Your task to perform on an android device: open app "DoorDash - Food Delivery" (install if not already installed) and go to login screen Image 0: 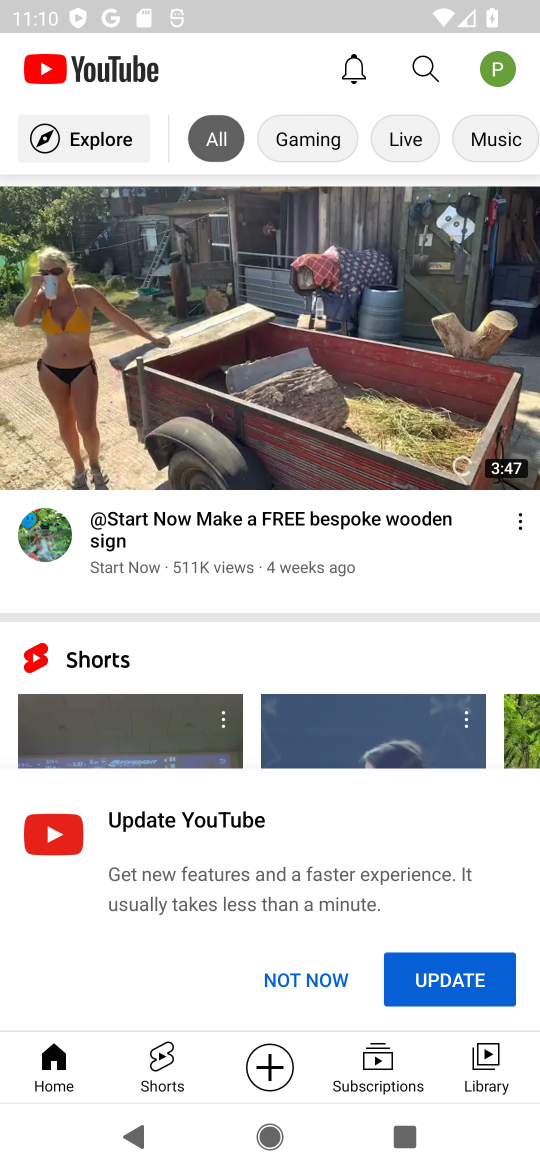
Step 0: press back button
Your task to perform on an android device: open app "DoorDash - Food Delivery" (install if not already installed) and go to login screen Image 1: 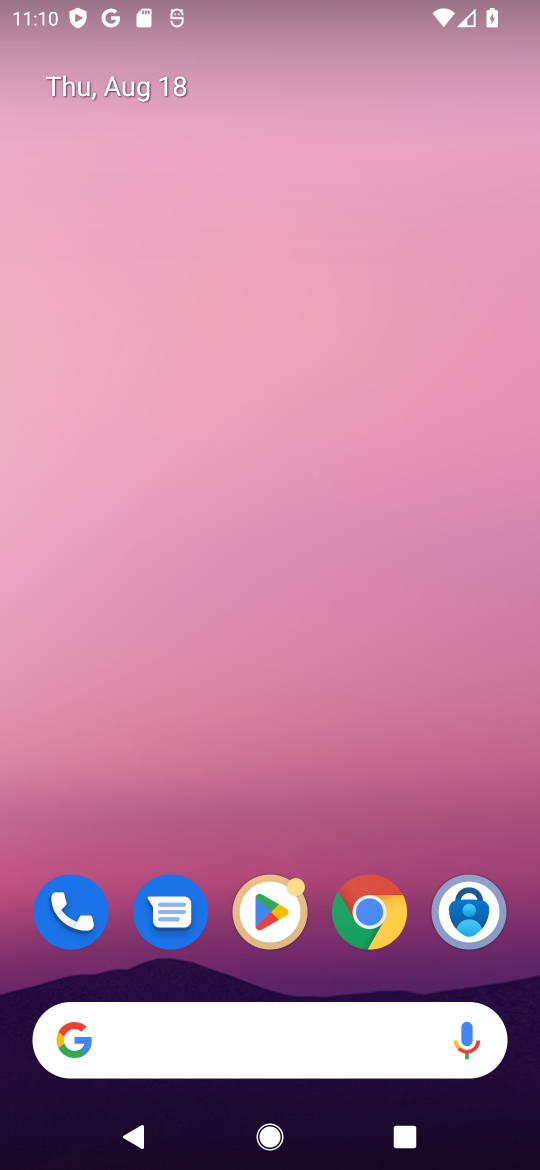
Step 1: click (261, 922)
Your task to perform on an android device: open app "DoorDash - Food Delivery" (install if not already installed) and go to login screen Image 2: 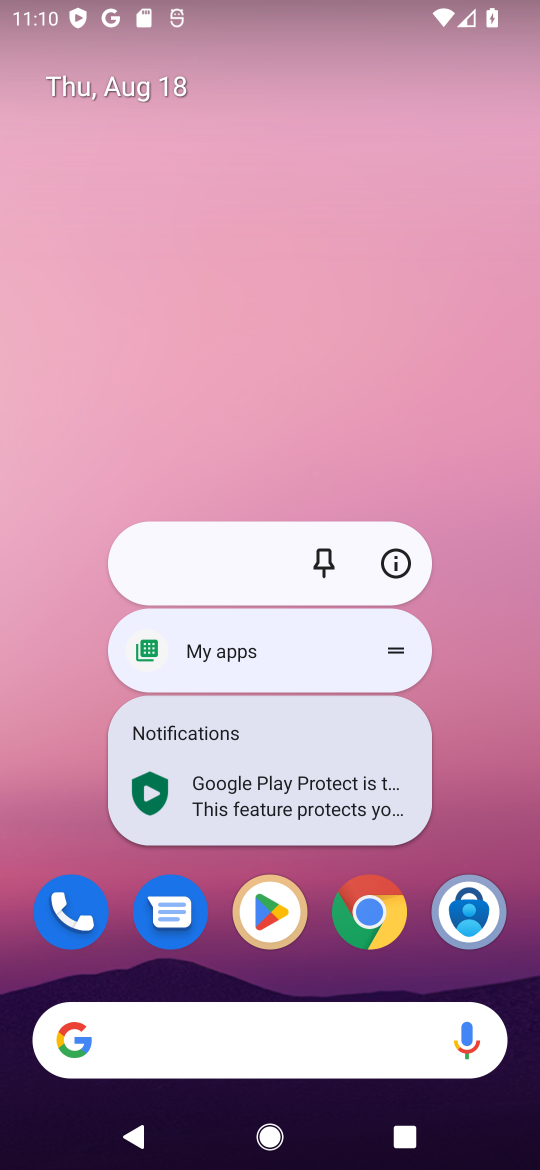
Step 2: click (277, 891)
Your task to perform on an android device: open app "DoorDash - Food Delivery" (install if not already installed) and go to login screen Image 3: 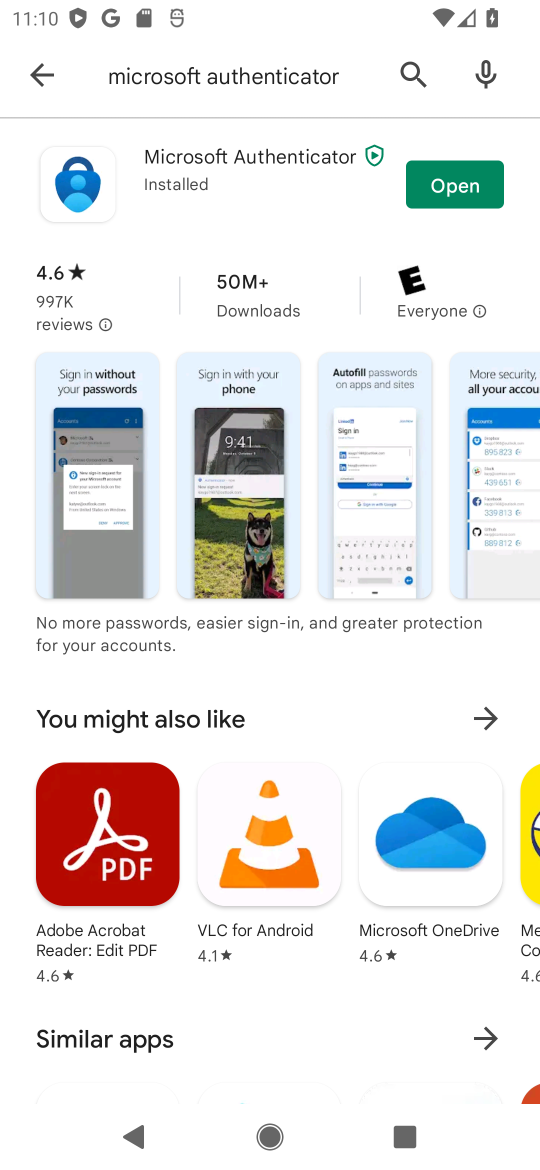
Step 3: click (411, 81)
Your task to perform on an android device: open app "DoorDash - Food Delivery" (install if not already installed) and go to login screen Image 4: 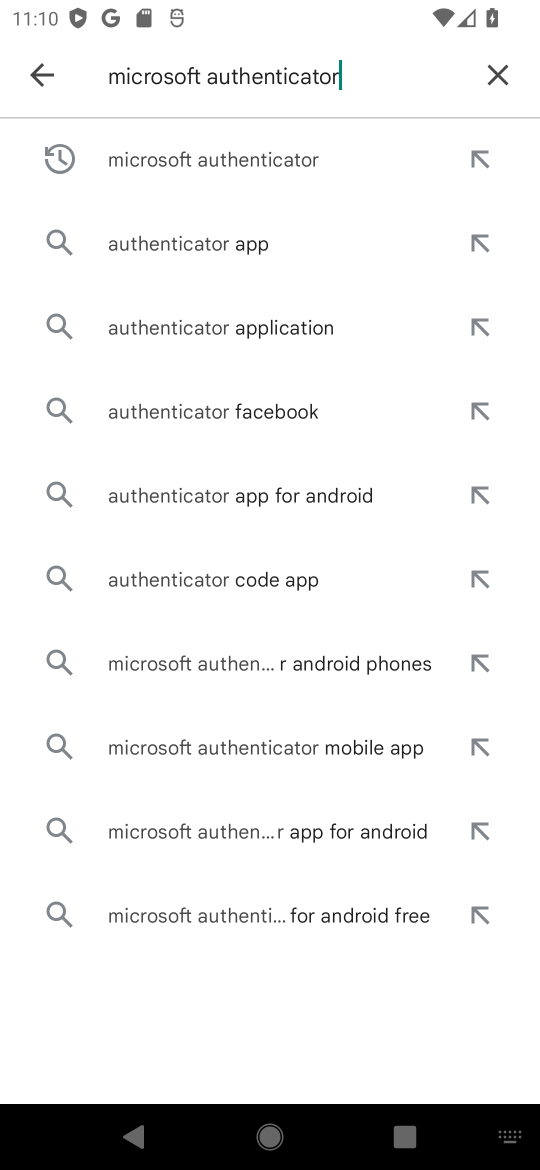
Step 4: click (505, 79)
Your task to perform on an android device: open app "DoorDash - Food Delivery" (install if not already installed) and go to login screen Image 5: 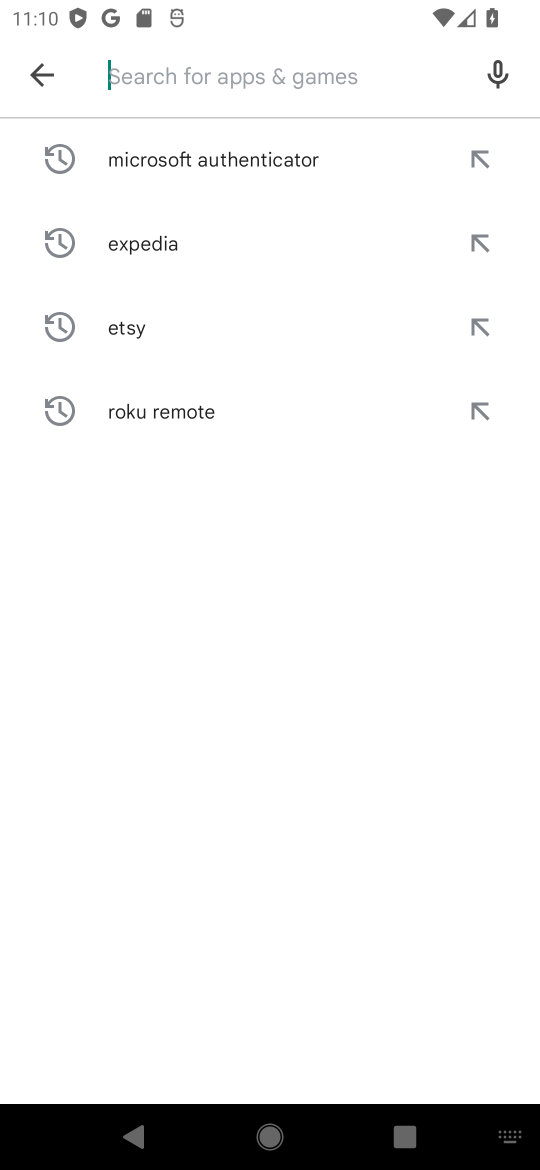
Step 5: click (184, 56)
Your task to perform on an android device: open app "DoorDash - Food Delivery" (install if not already installed) and go to login screen Image 6: 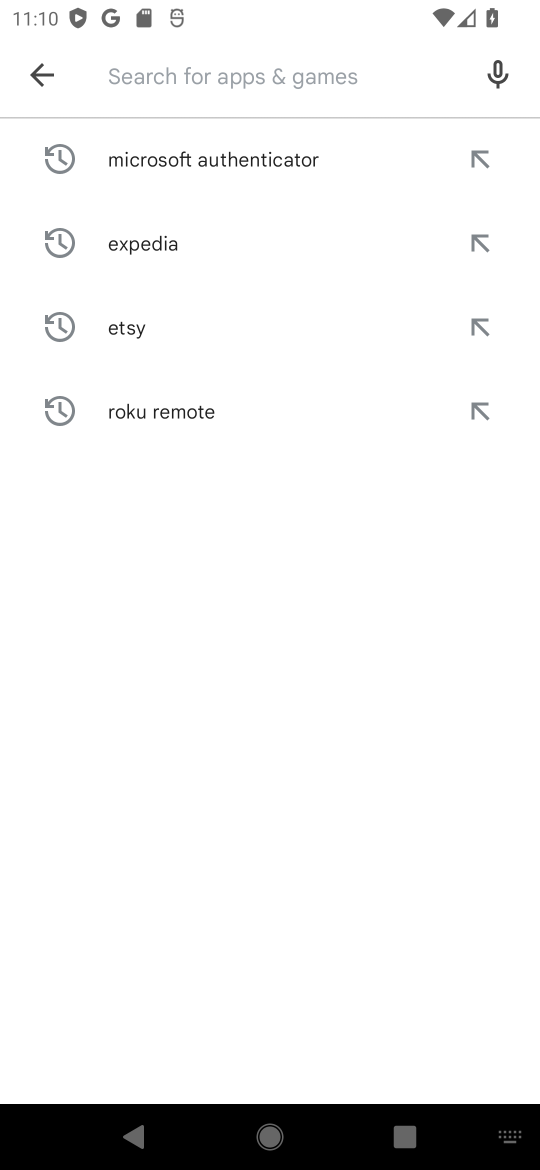
Step 6: type "DoorDash"
Your task to perform on an android device: open app "DoorDash - Food Delivery" (install if not already installed) and go to login screen Image 7: 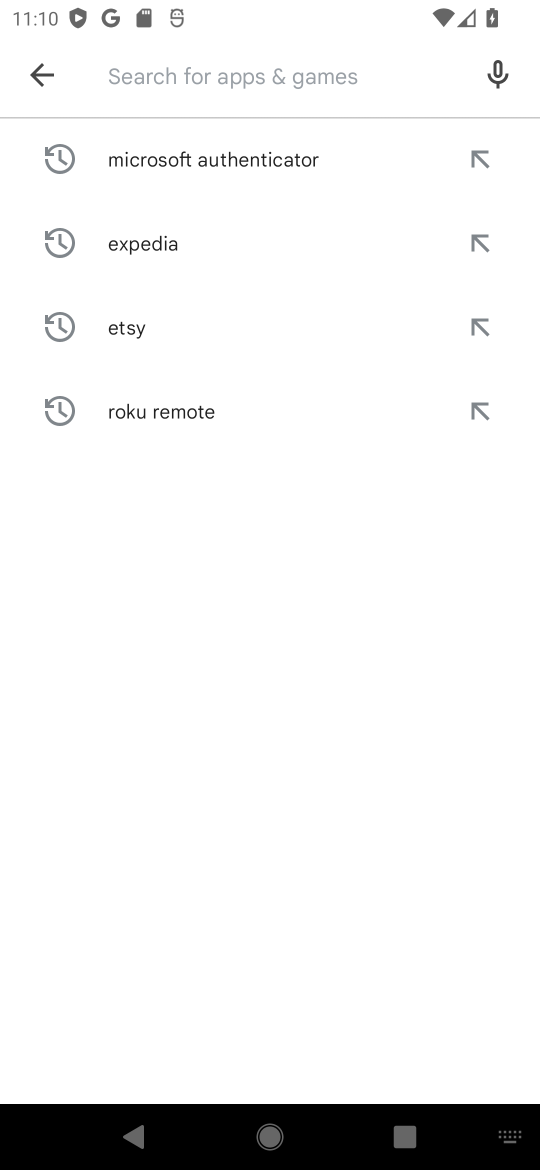
Step 7: click (273, 629)
Your task to perform on an android device: open app "DoorDash - Food Delivery" (install if not already installed) and go to login screen Image 8: 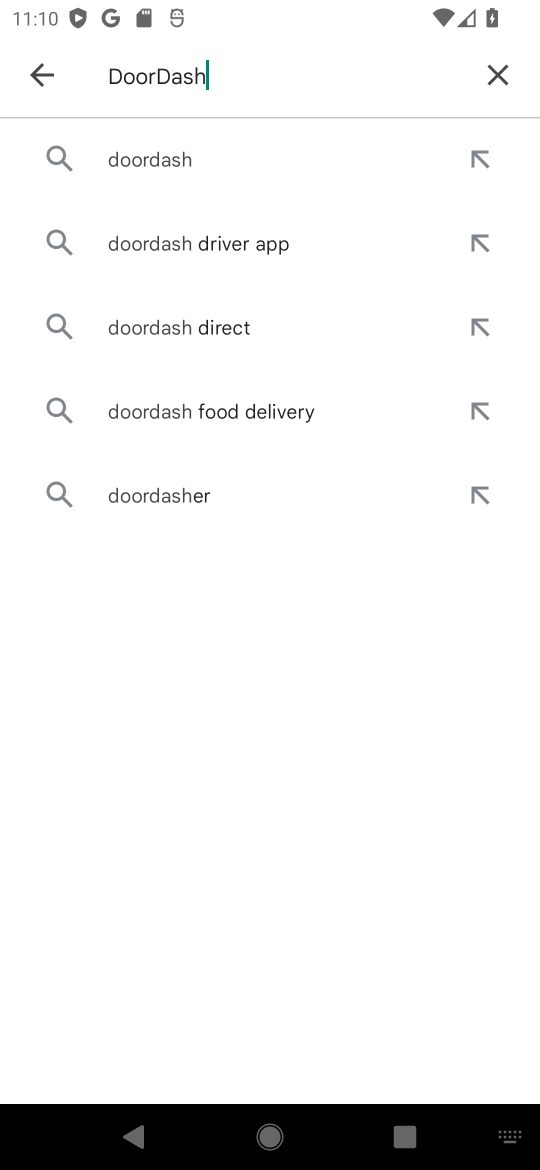
Step 8: click (181, 165)
Your task to perform on an android device: open app "DoorDash - Food Delivery" (install if not already installed) and go to login screen Image 9: 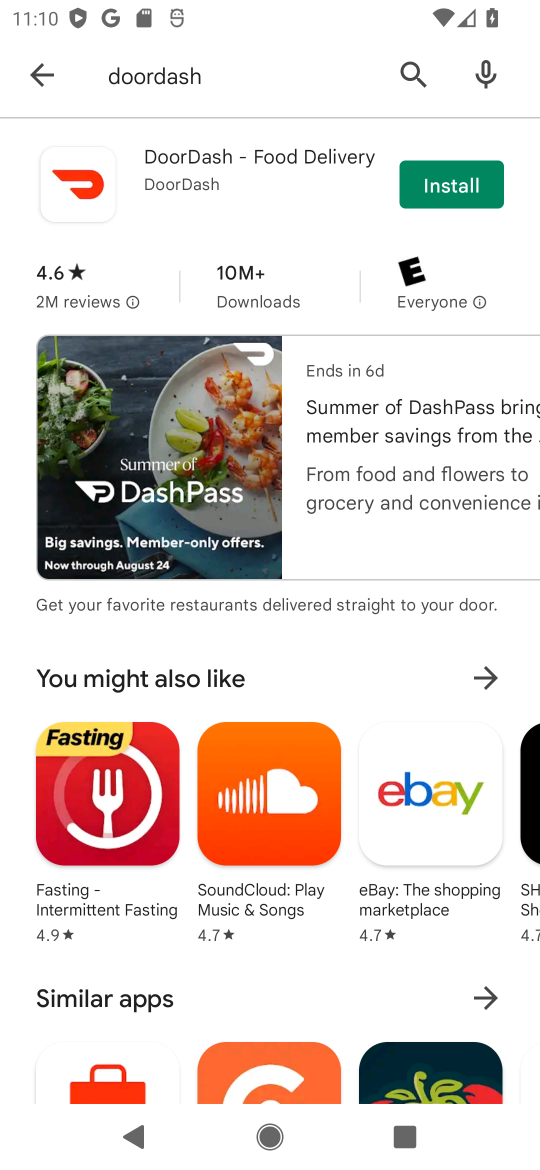
Step 9: click (473, 190)
Your task to perform on an android device: open app "DoorDash - Food Delivery" (install if not already installed) and go to login screen Image 10: 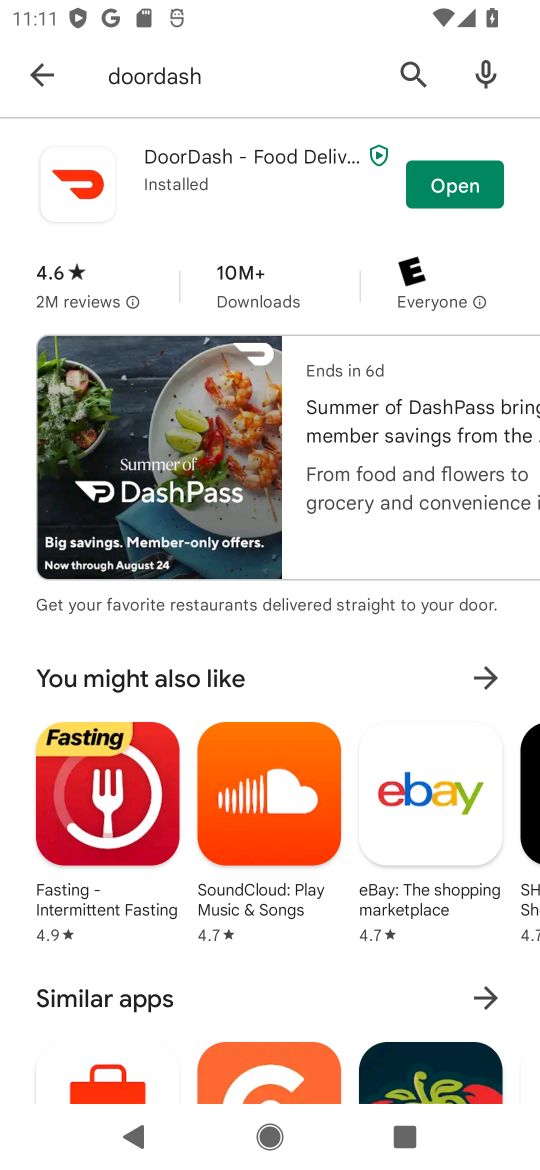
Step 10: click (466, 197)
Your task to perform on an android device: open app "DoorDash - Food Delivery" (install if not already installed) and go to login screen Image 11: 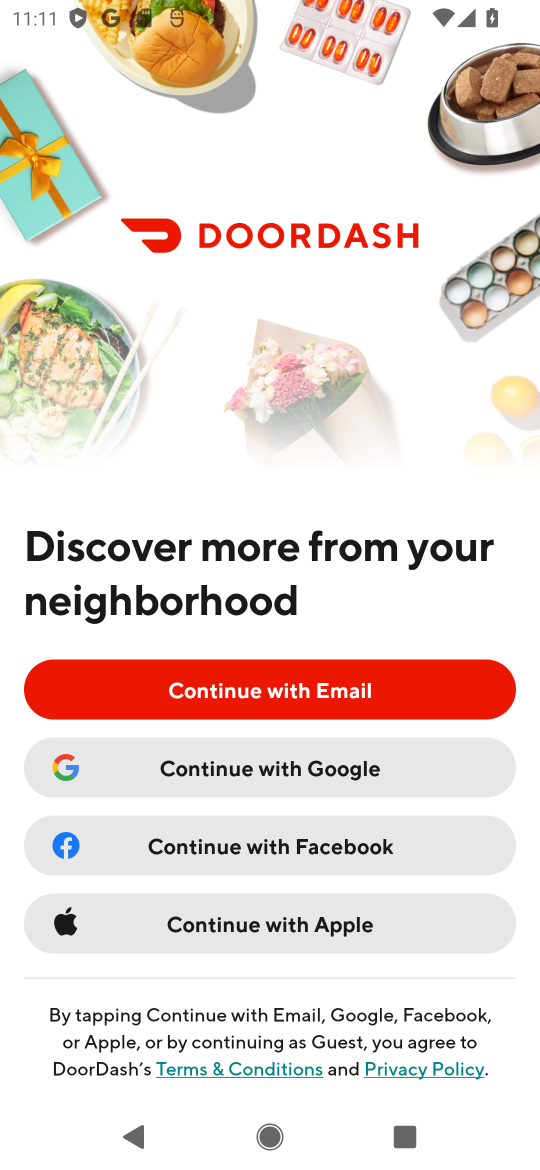
Step 11: task complete